Your task to perform on an android device: Empty the shopping cart on amazon.com. Image 0: 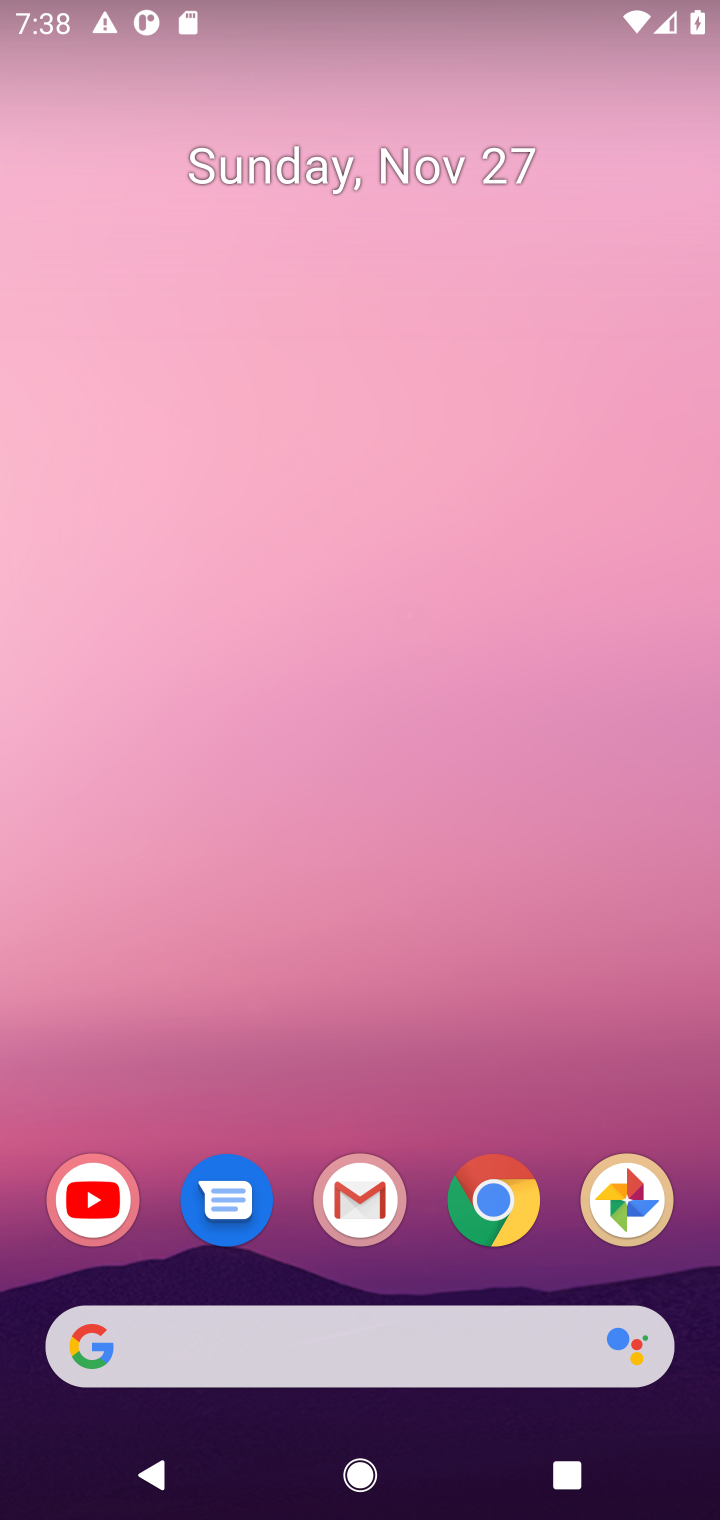
Step 0: click (487, 1224)
Your task to perform on an android device: Empty the shopping cart on amazon.com. Image 1: 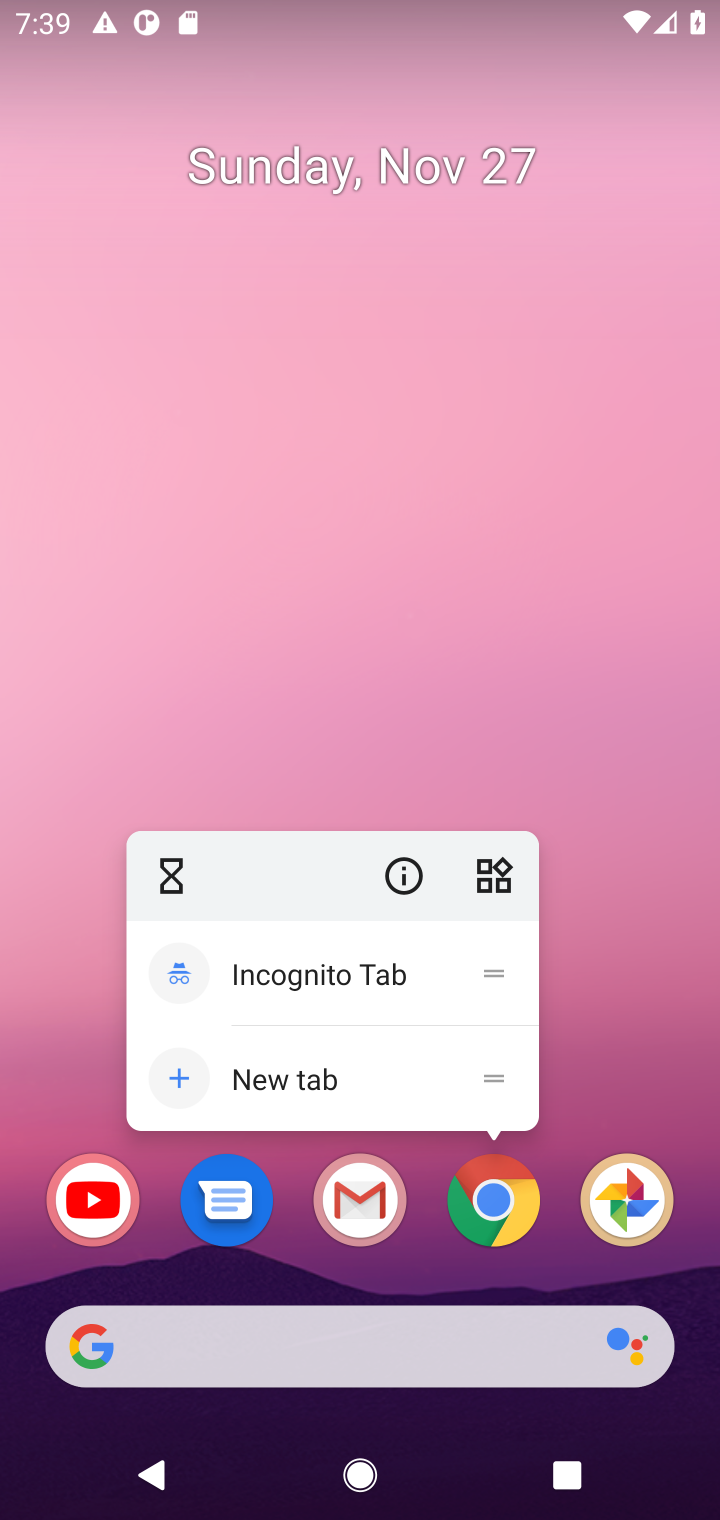
Step 1: click (487, 1224)
Your task to perform on an android device: Empty the shopping cart on amazon.com. Image 2: 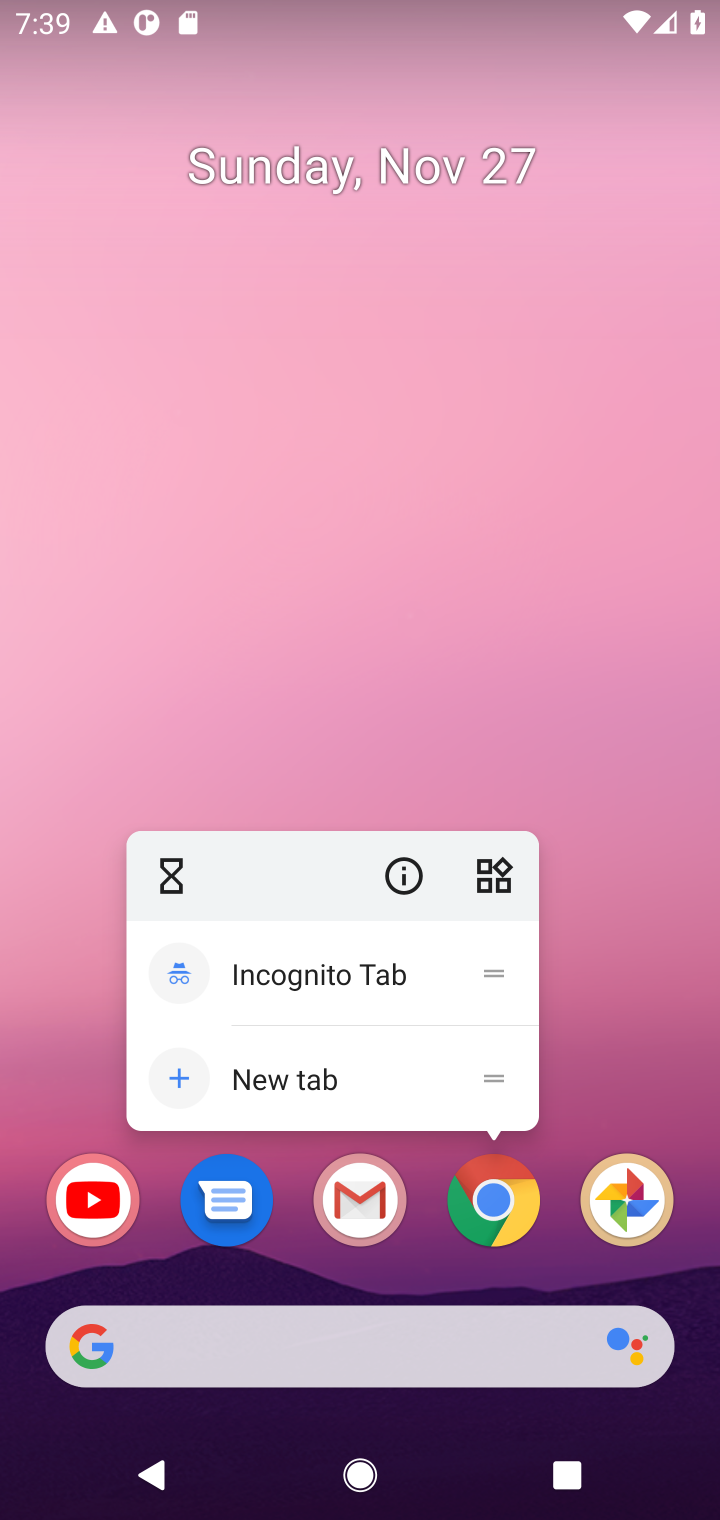
Step 2: click (494, 1191)
Your task to perform on an android device: Empty the shopping cart on amazon.com. Image 3: 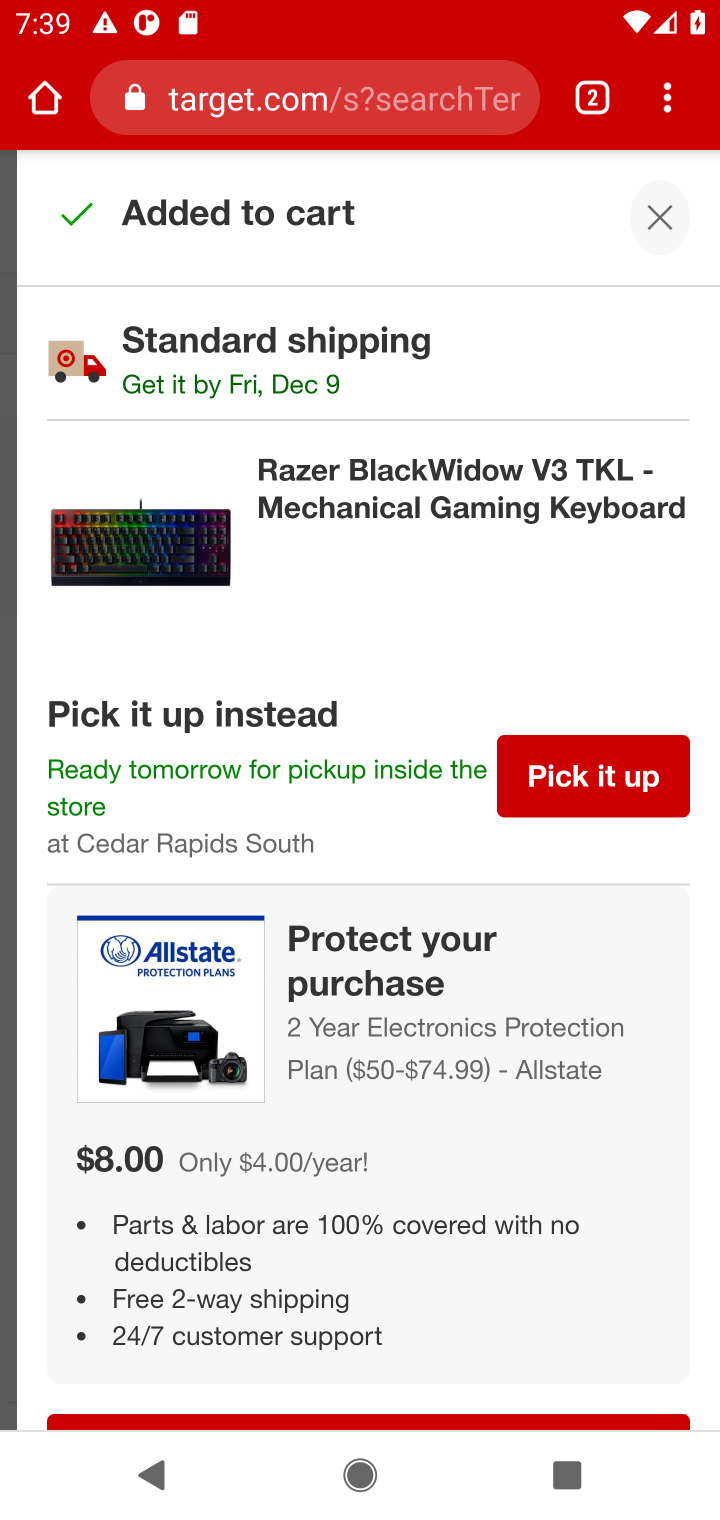
Step 3: click (287, 112)
Your task to perform on an android device: Empty the shopping cart on amazon.com. Image 4: 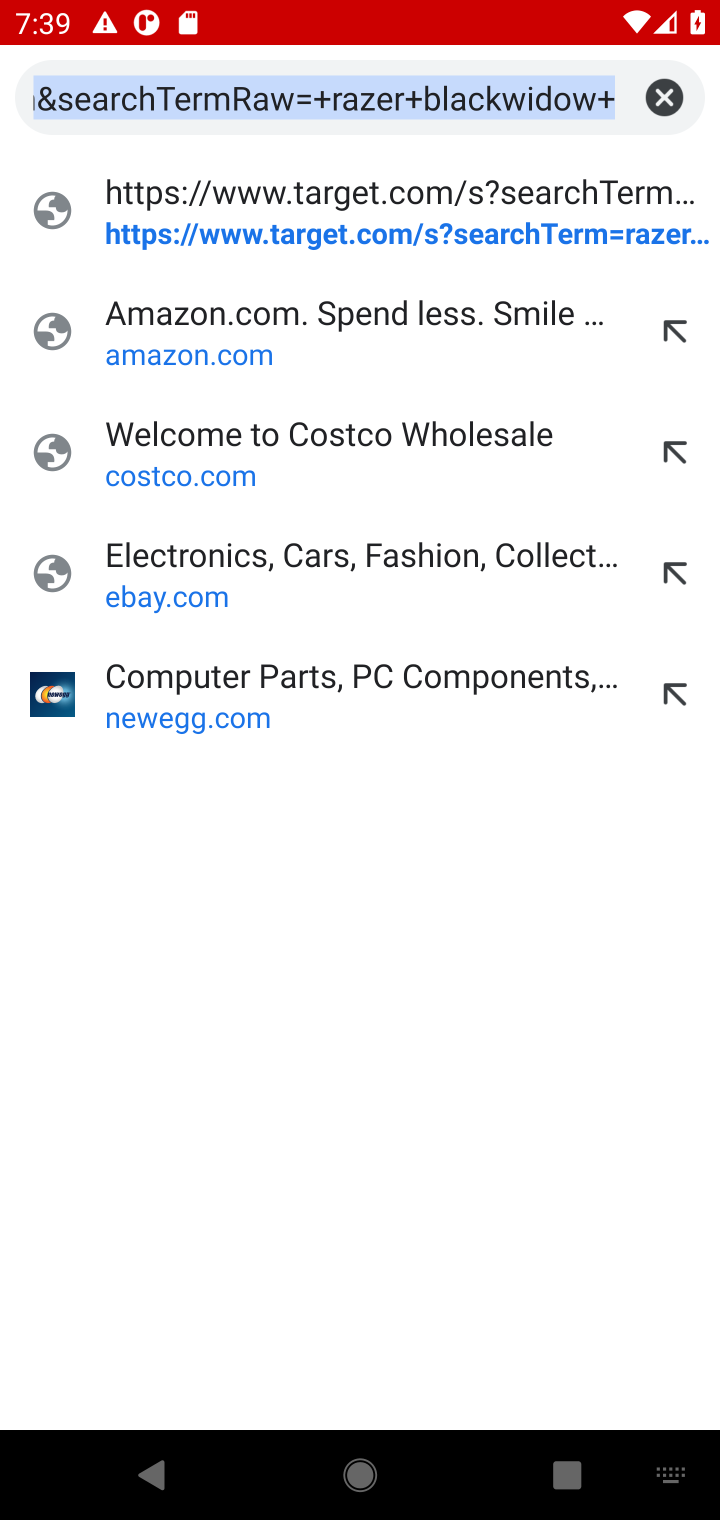
Step 4: click (164, 359)
Your task to perform on an android device: Empty the shopping cart on amazon.com. Image 5: 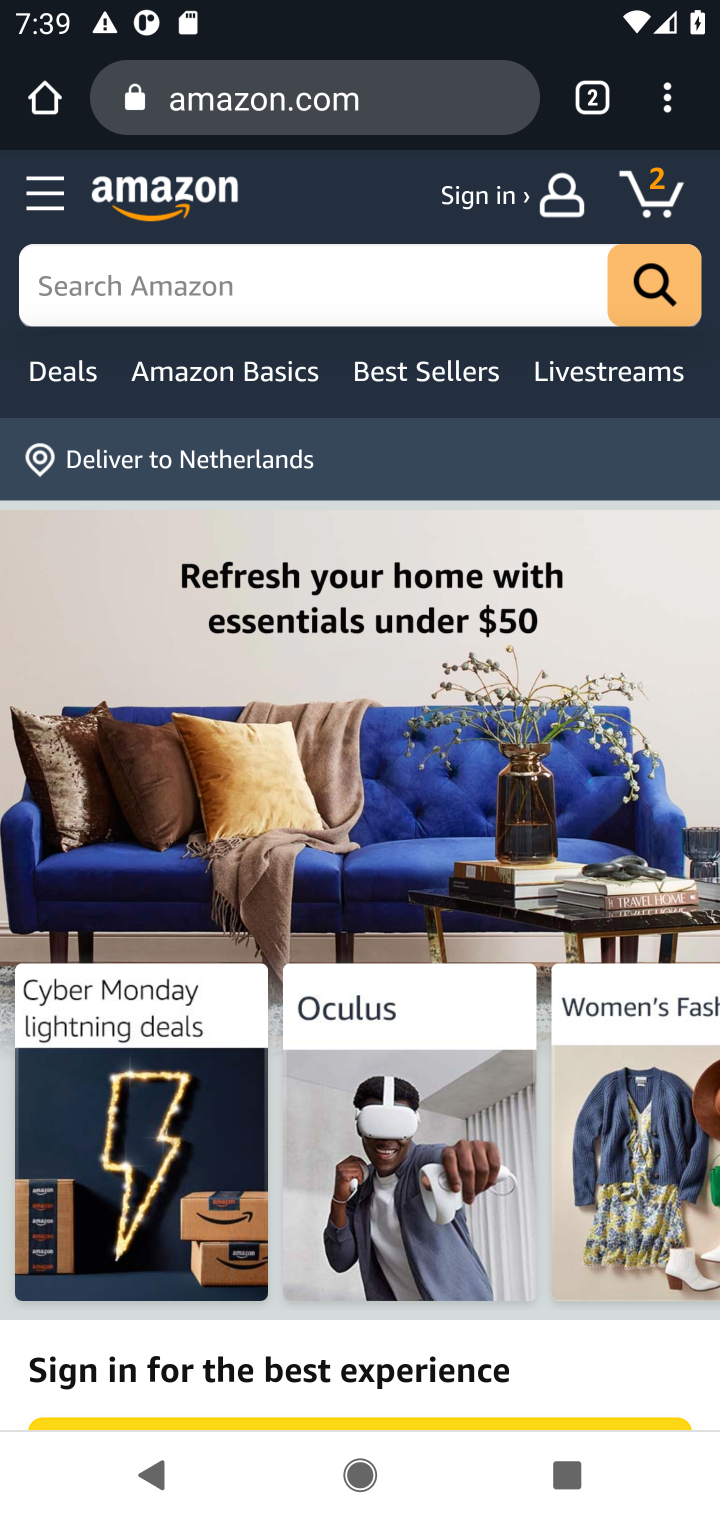
Step 5: click (659, 202)
Your task to perform on an android device: Empty the shopping cart on amazon.com. Image 6: 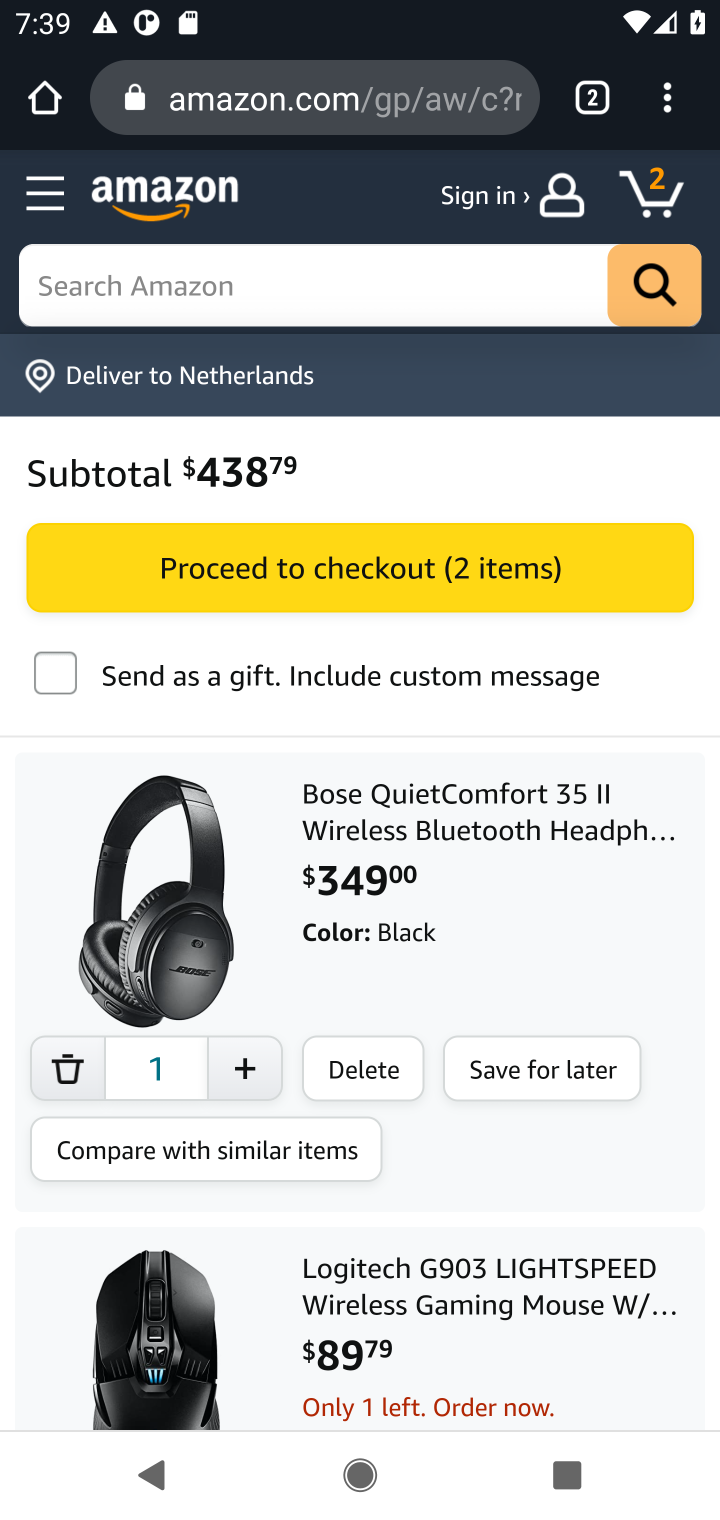
Step 6: click (55, 1062)
Your task to perform on an android device: Empty the shopping cart on amazon.com. Image 7: 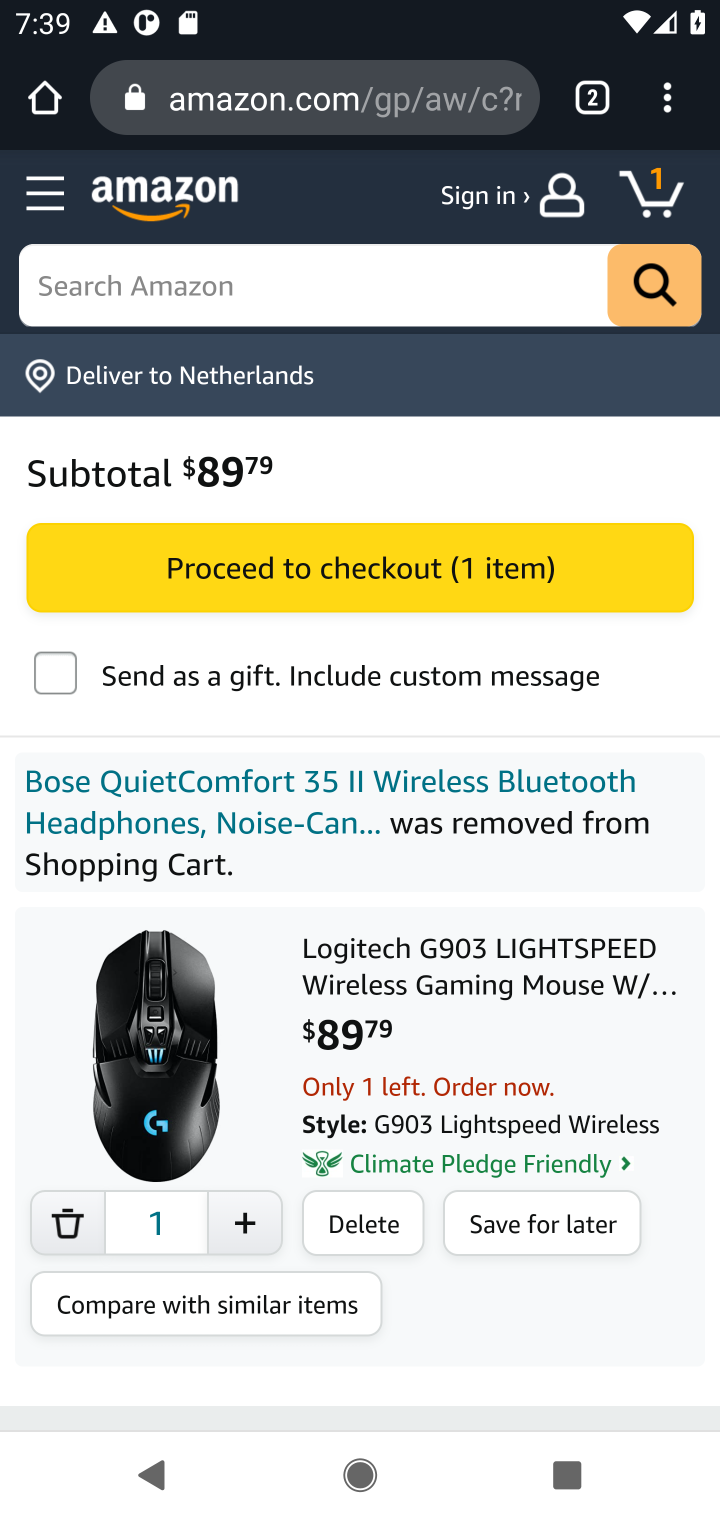
Step 7: click (73, 1224)
Your task to perform on an android device: Empty the shopping cart on amazon.com. Image 8: 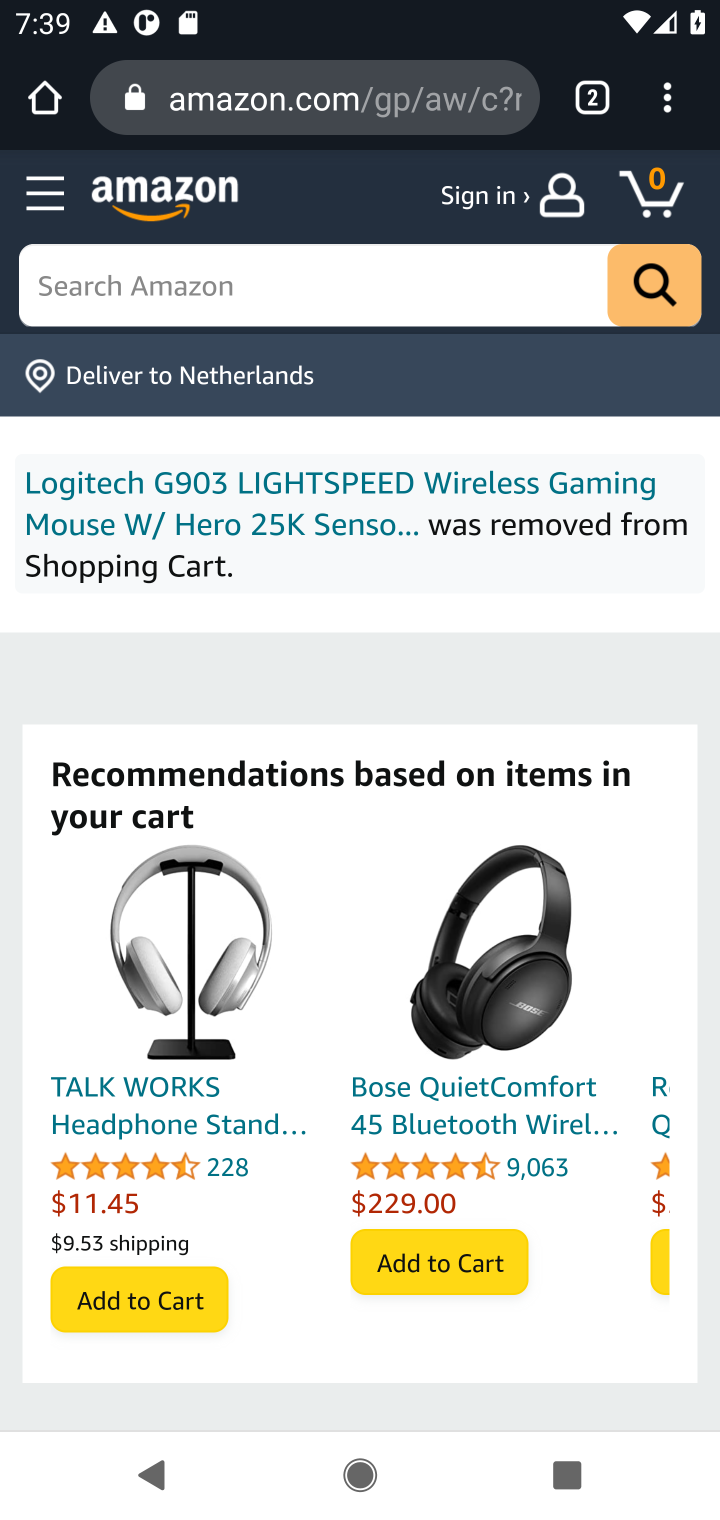
Step 8: task complete